Your task to perform on an android device: turn on javascript in the chrome app Image 0: 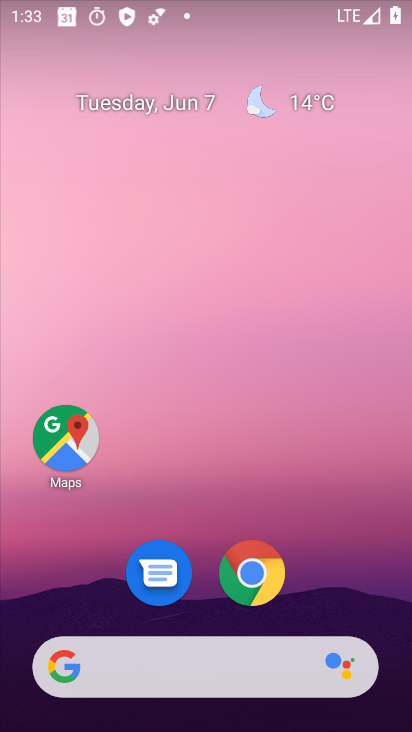
Step 0: click (254, 566)
Your task to perform on an android device: turn on javascript in the chrome app Image 1: 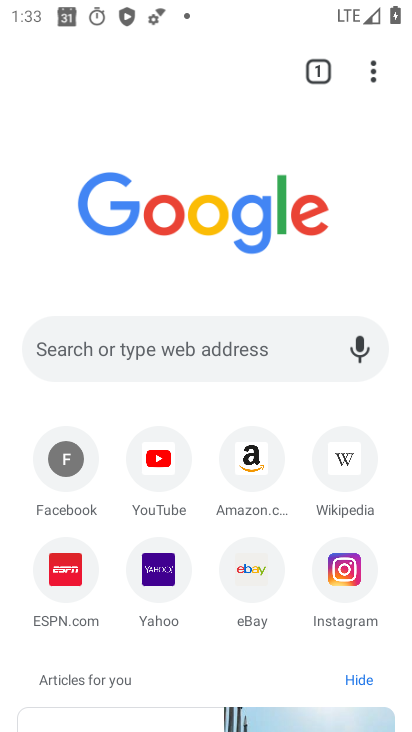
Step 1: click (370, 63)
Your task to perform on an android device: turn on javascript in the chrome app Image 2: 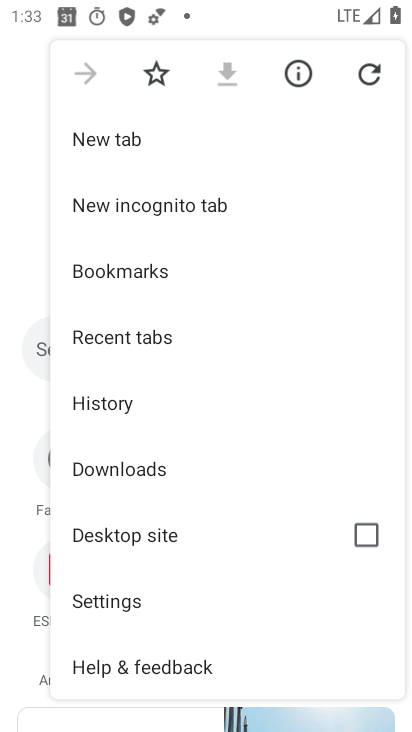
Step 2: click (134, 604)
Your task to perform on an android device: turn on javascript in the chrome app Image 3: 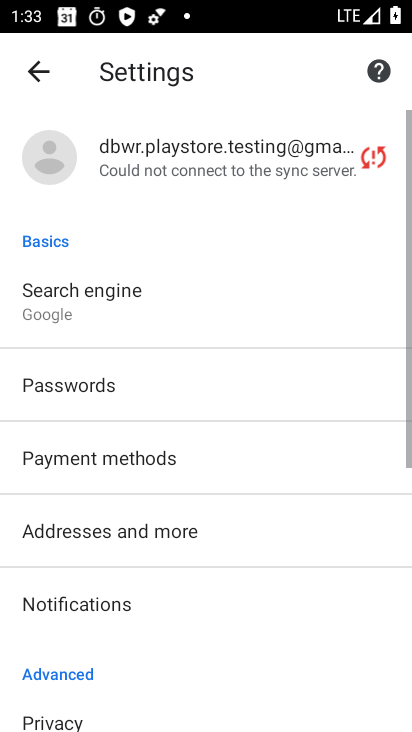
Step 3: drag from (178, 663) to (225, 182)
Your task to perform on an android device: turn on javascript in the chrome app Image 4: 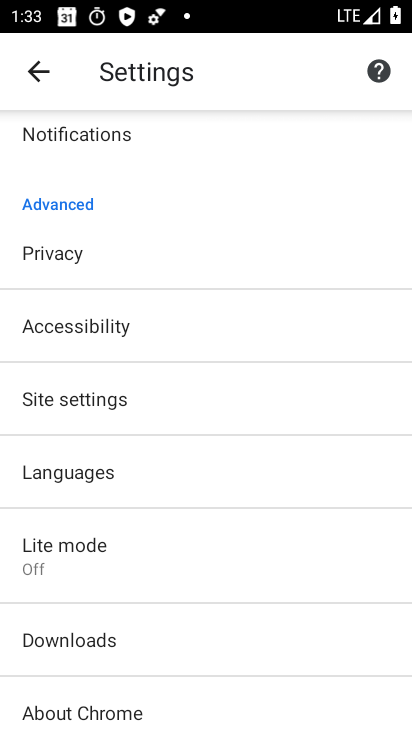
Step 4: click (131, 408)
Your task to perform on an android device: turn on javascript in the chrome app Image 5: 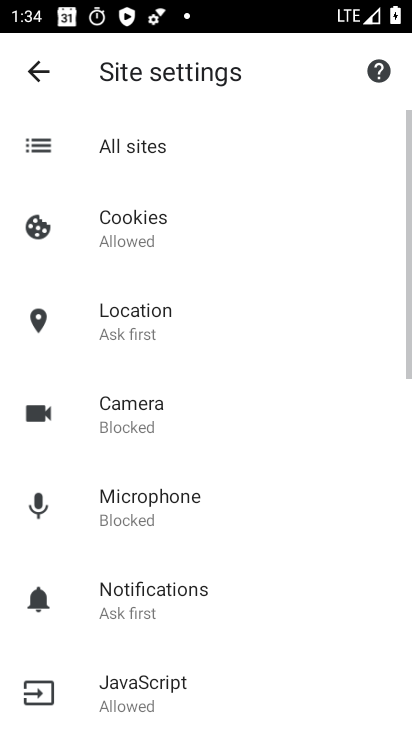
Step 5: click (162, 682)
Your task to perform on an android device: turn on javascript in the chrome app Image 6: 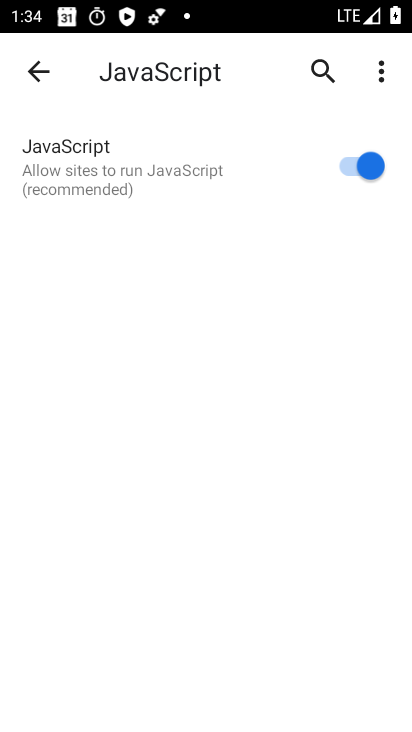
Step 6: task complete